Your task to perform on an android device: snooze an email in the gmail app Image 0: 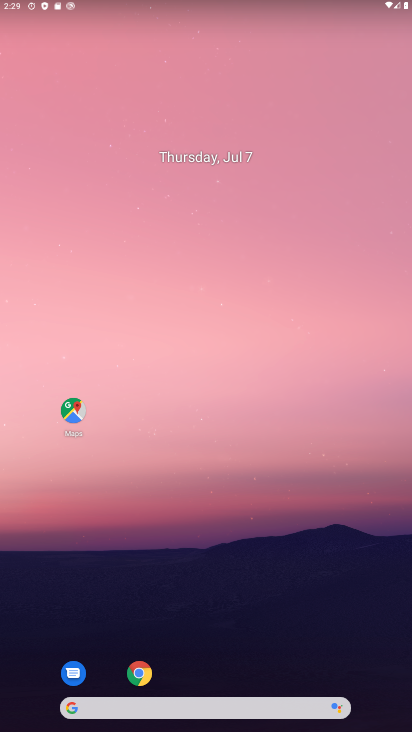
Step 0: drag from (224, 671) to (227, 1)
Your task to perform on an android device: snooze an email in the gmail app Image 1: 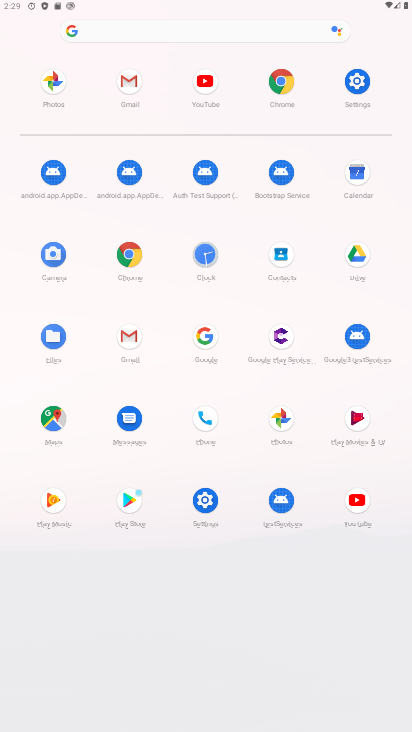
Step 1: click (130, 343)
Your task to perform on an android device: snooze an email in the gmail app Image 2: 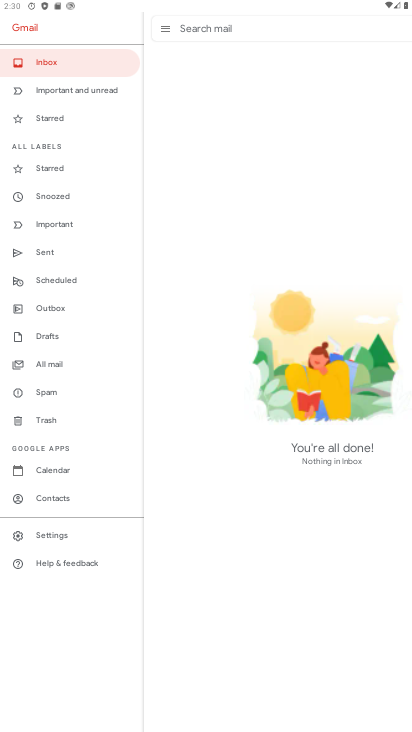
Step 2: click (43, 65)
Your task to perform on an android device: snooze an email in the gmail app Image 3: 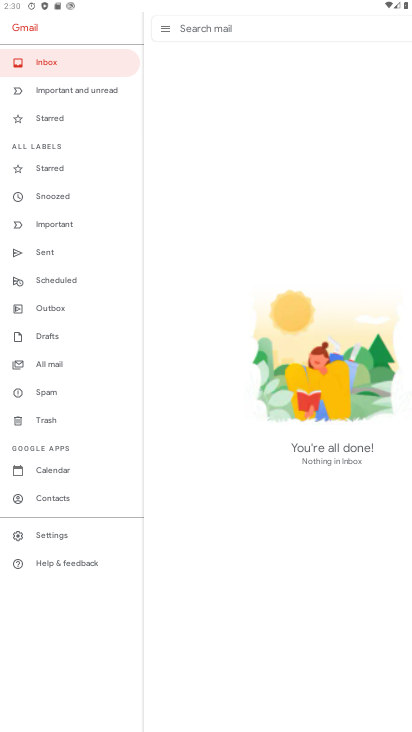
Step 3: task complete